Your task to perform on an android device: Go to location settings Image 0: 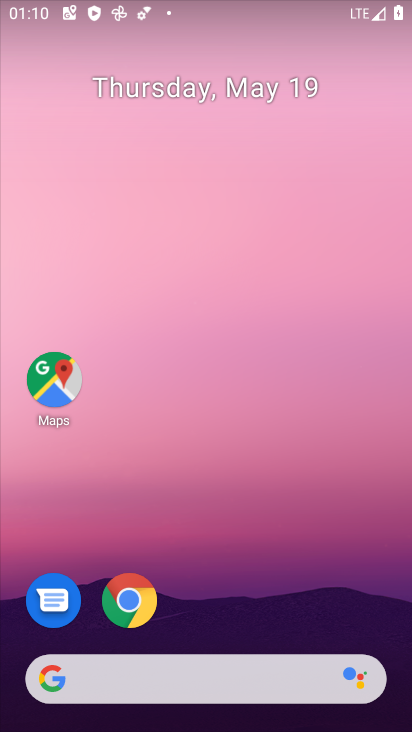
Step 0: drag from (305, 593) to (257, 207)
Your task to perform on an android device: Go to location settings Image 1: 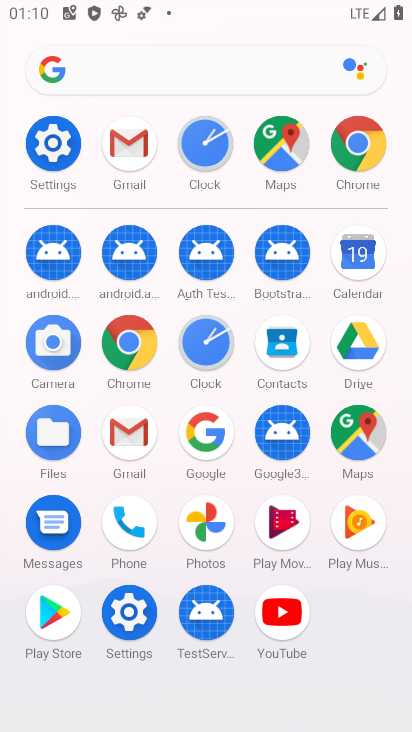
Step 1: click (51, 142)
Your task to perform on an android device: Go to location settings Image 2: 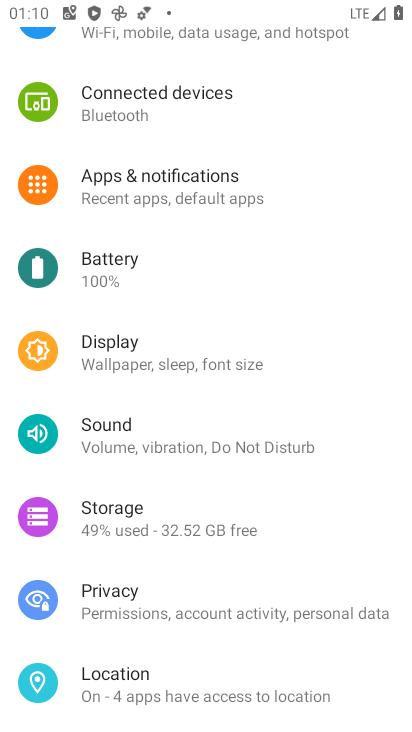
Step 2: click (137, 672)
Your task to perform on an android device: Go to location settings Image 3: 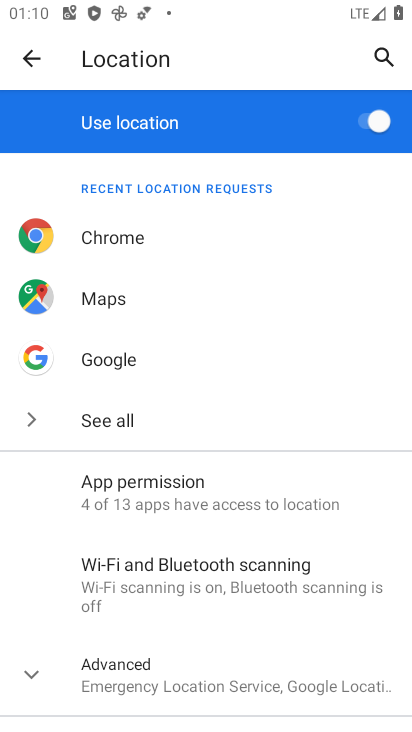
Step 3: task complete